Your task to perform on an android device: check storage Image 0: 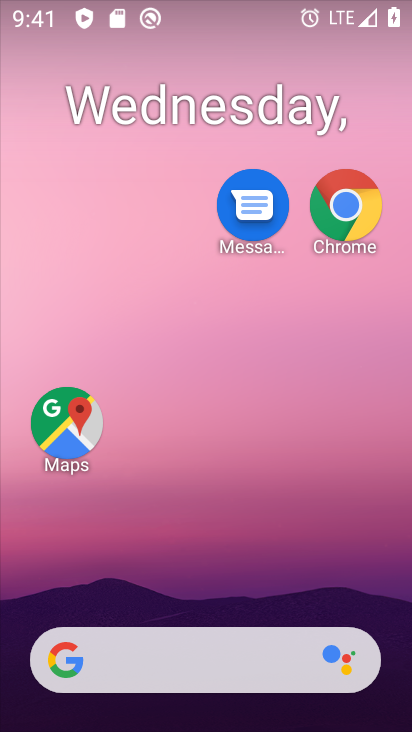
Step 0: drag from (243, 475) to (263, 123)
Your task to perform on an android device: check storage Image 1: 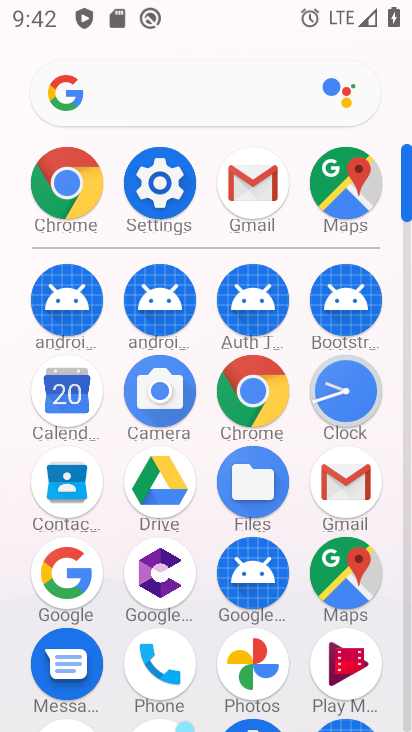
Step 1: click (155, 183)
Your task to perform on an android device: check storage Image 2: 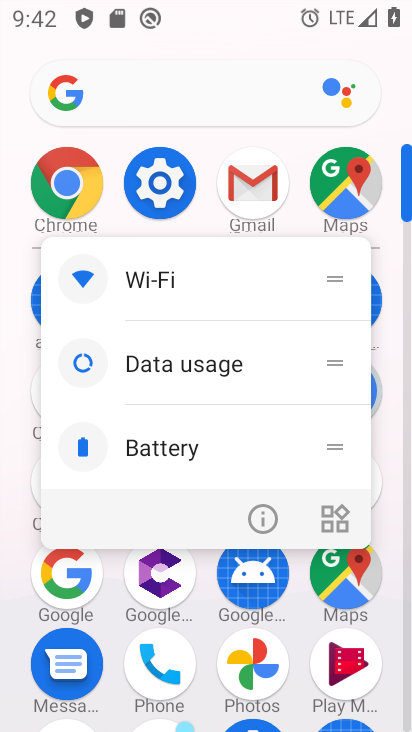
Step 2: click (253, 526)
Your task to perform on an android device: check storage Image 3: 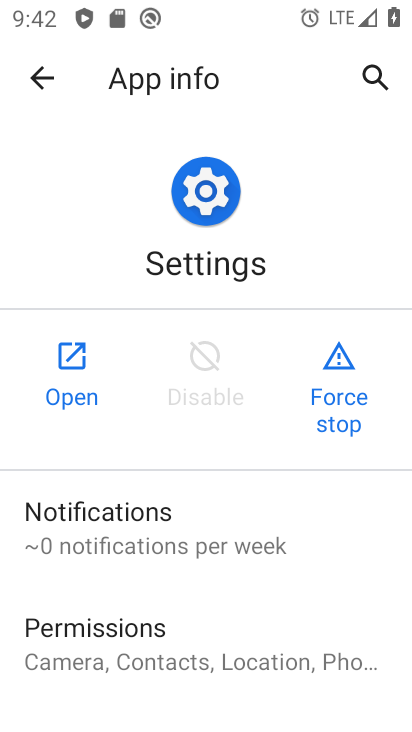
Step 3: click (78, 351)
Your task to perform on an android device: check storage Image 4: 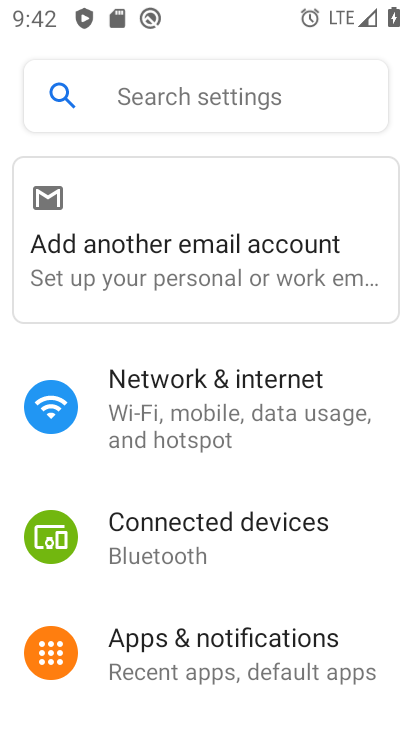
Step 4: drag from (238, 669) to (278, 72)
Your task to perform on an android device: check storage Image 5: 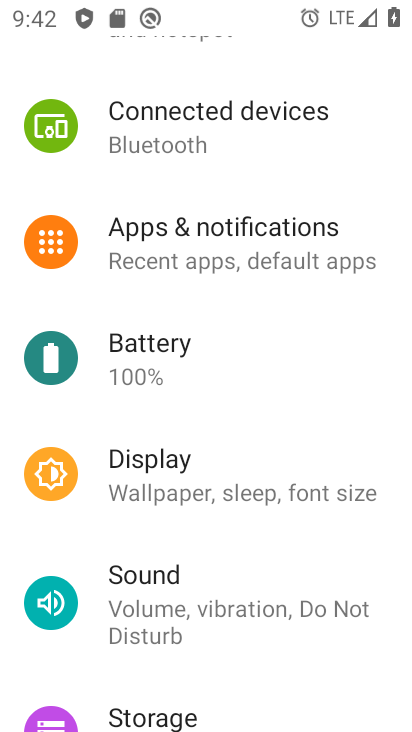
Step 5: click (187, 724)
Your task to perform on an android device: check storage Image 6: 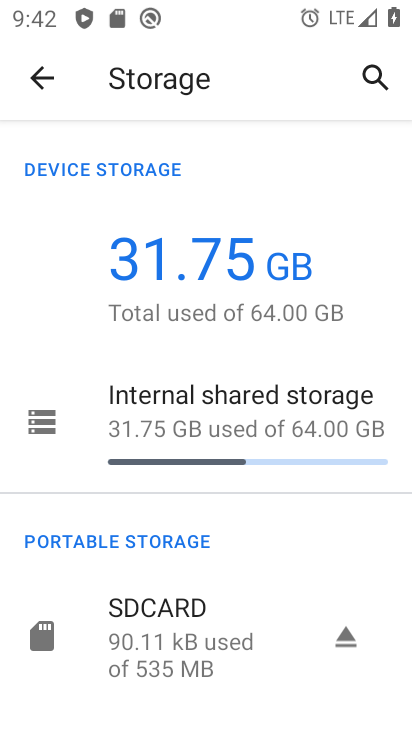
Step 6: task complete